Your task to perform on an android device: Go to Wikipedia Image 0: 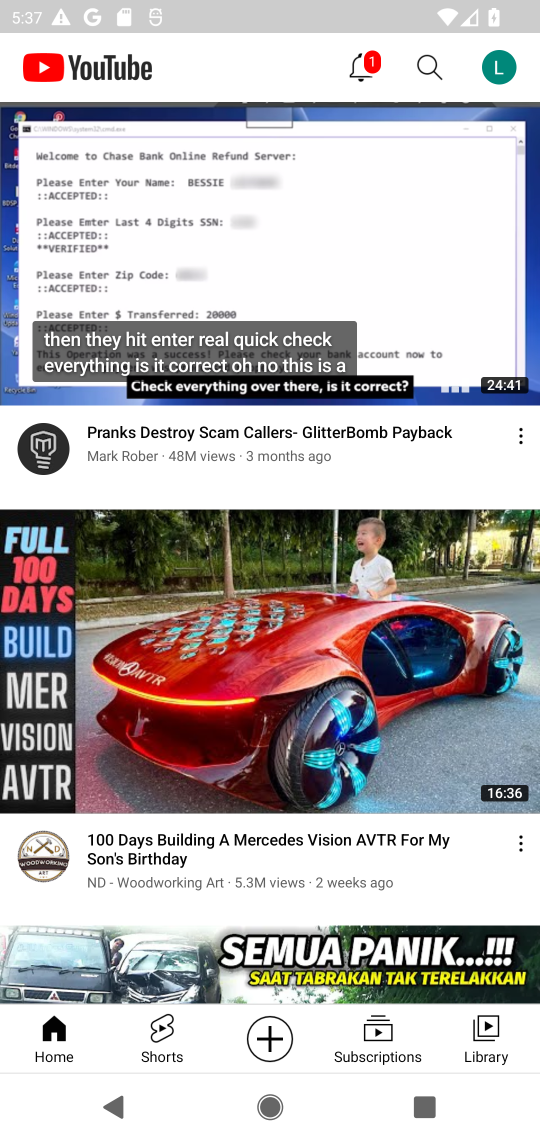
Step 0: task complete